Your task to perform on an android device: toggle sleep mode Image 0: 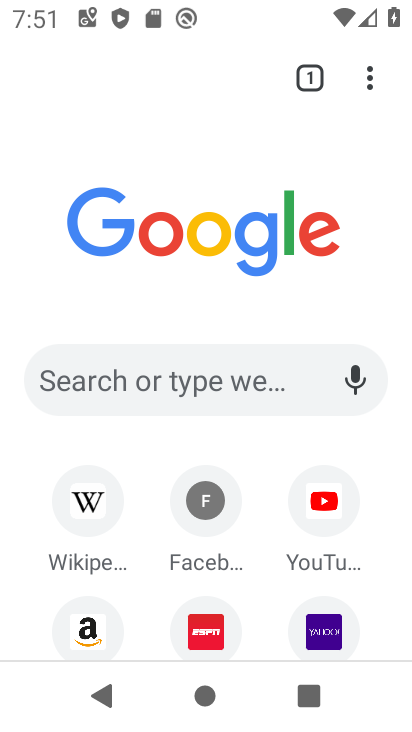
Step 0: press back button
Your task to perform on an android device: toggle sleep mode Image 1: 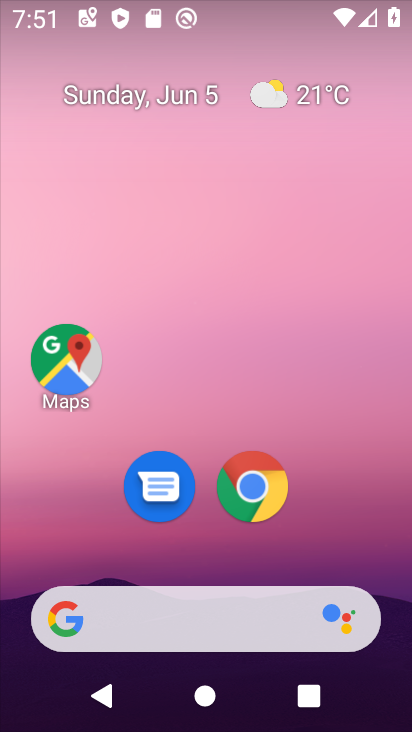
Step 1: drag from (240, 559) to (259, 79)
Your task to perform on an android device: toggle sleep mode Image 2: 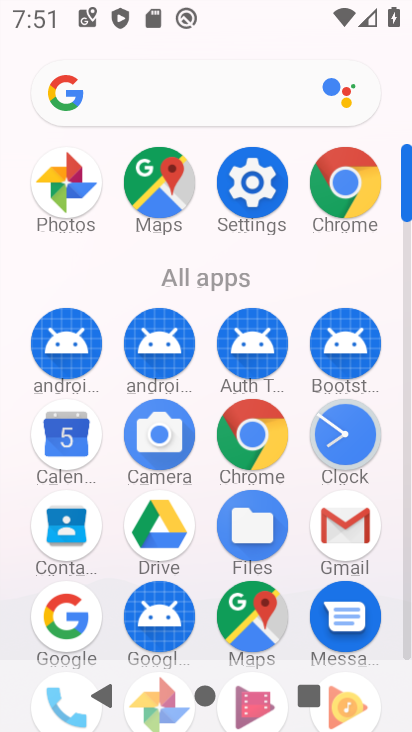
Step 2: click (250, 198)
Your task to perform on an android device: toggle sleep mode Image 3: 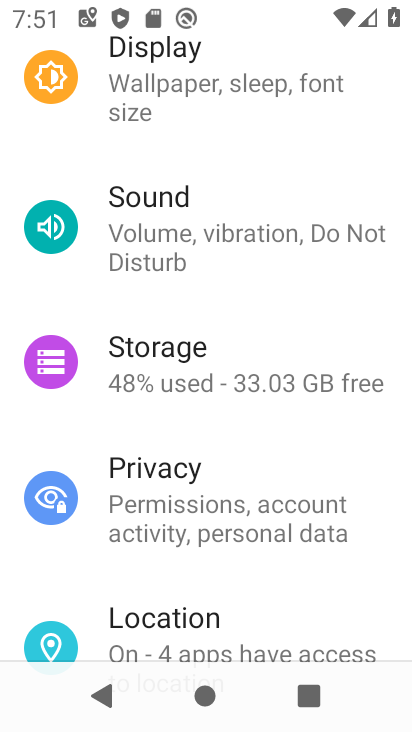
Step 3: drag from (260, 154) to (265, 653)
Your task to perform on an android device: toggle sleep mode Image 4: 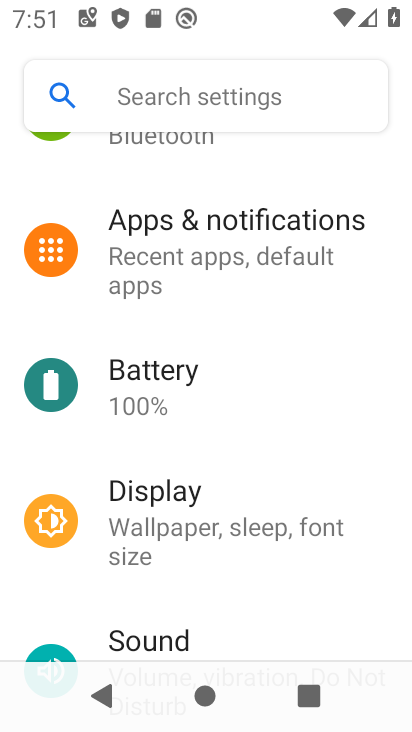
Step 4: click (191, 102)
Your task to perform on an android device: toggle sleep mode Image 5: 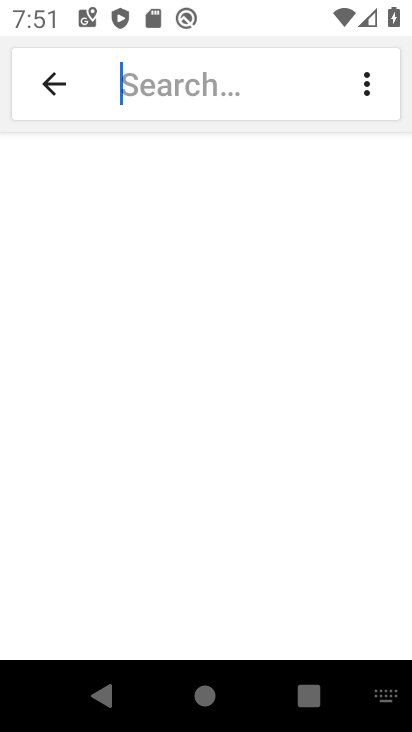
Step 5: type "sleep mode"
Your task to perform on an android device: toggle sleep mode Image 6: 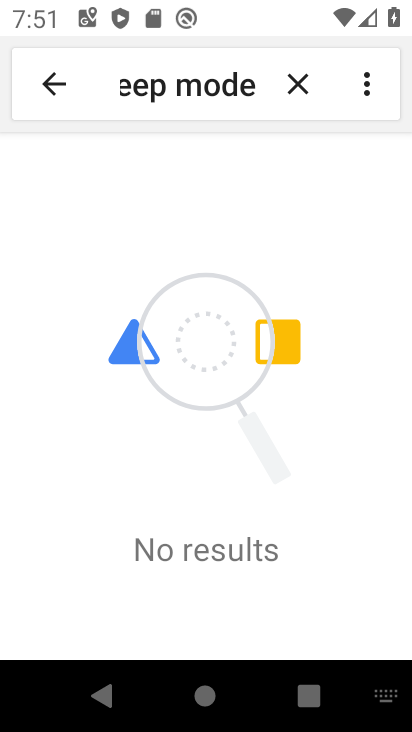
Step 6: task complete